Your task to perform on an android device: Open sound settings Image 0: 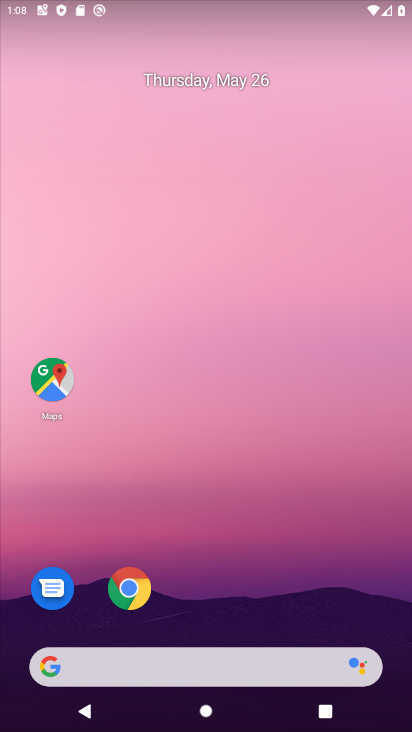
Step 0: drag from (395, 705) to (391, 144)
Your task to perform on an android device: Open sound settings Image 1: 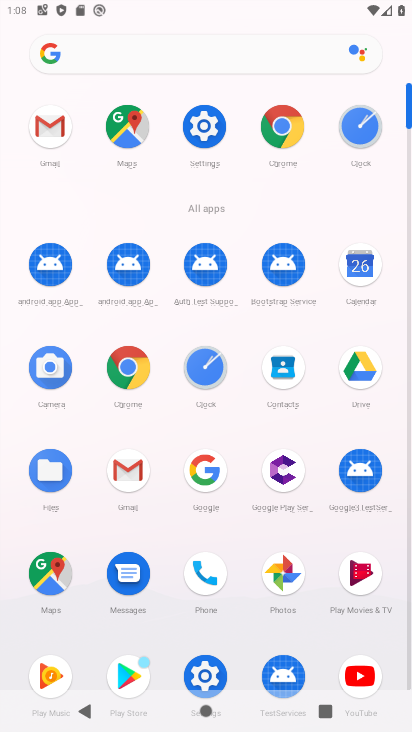
Step 1: click (200, 136)
Your task to perform on an android device: Open sound settings Image 2: 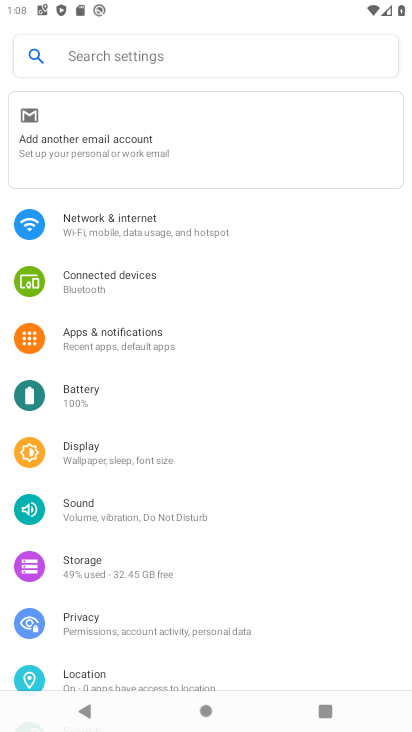
Step 2: click (83, 506)
Your task to perform on an android device: Open sound settings Image 3: 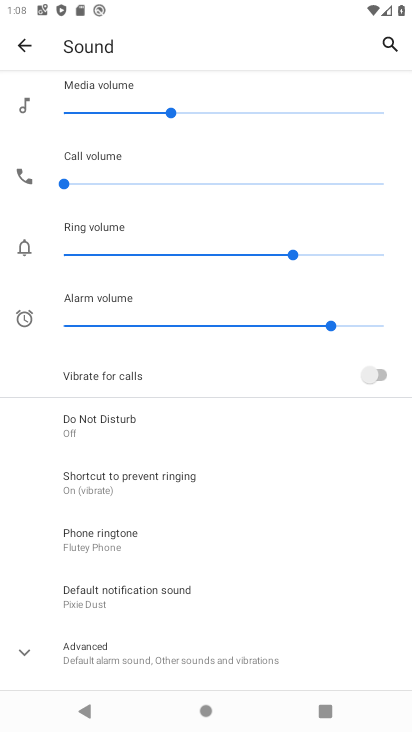
Step 3: drag from (312, 511) to (306, 325)
Your task to perform on an android device: Open sound settings Image 4: 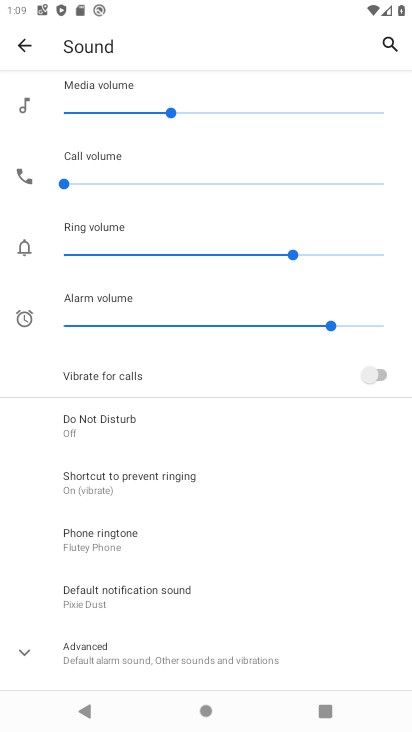
Step 4: click (23, 655)
Your task to perform on an android device: Open sound settings Image 5: 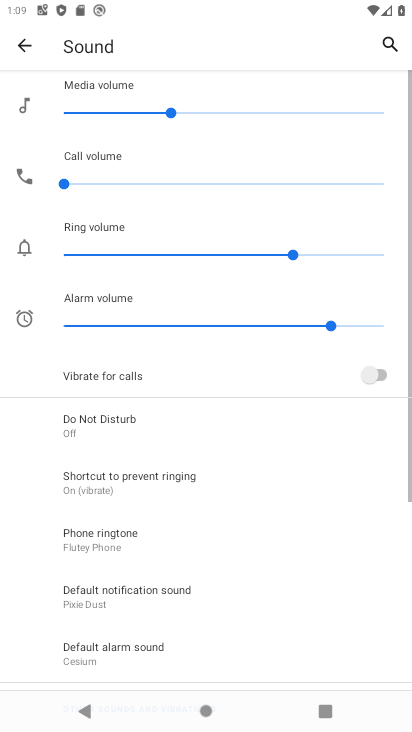
Step 5: task complete